Your task to perform on an android device: turn on data saver in the chrome app Image 0: 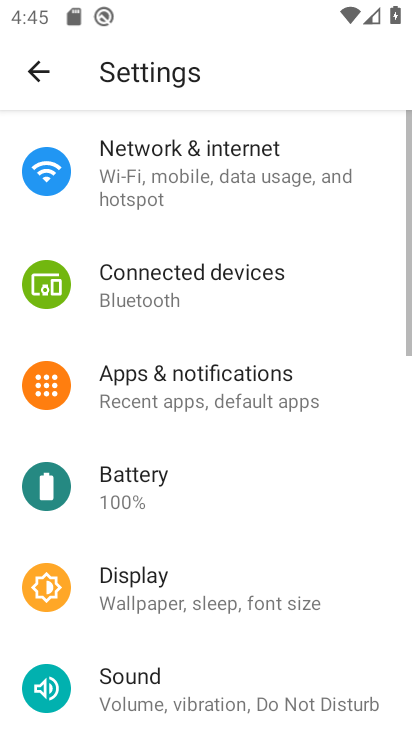
Step 0: press home button
Your task to perform on an android device: turn on data saver in the chrome app Image 1: 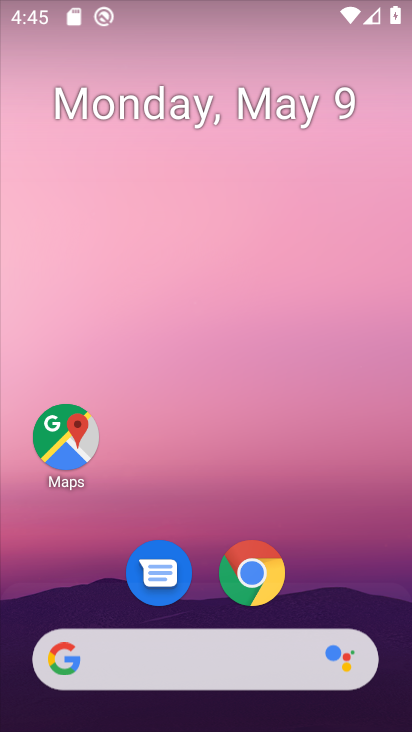
Step 1: click (257, 573)
Your task to perform on an android device: turn on data saver in the chrome app Image 2: 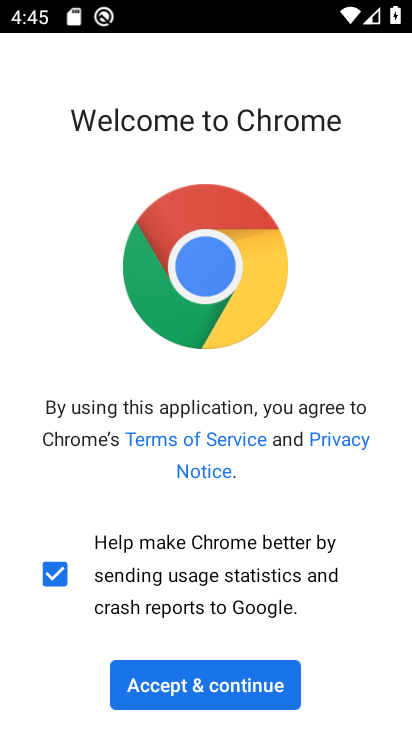
Step 2: click (209, 685)
Your task to perform on an android device: turn on data saver in the chrome app Image 3: 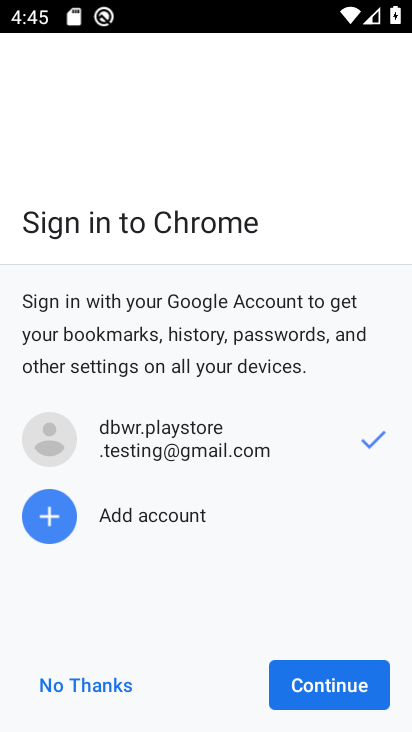
Step 3: click (324, 687)
Your task to perform on an android device: turn on data saver in the chrome app Image 4: 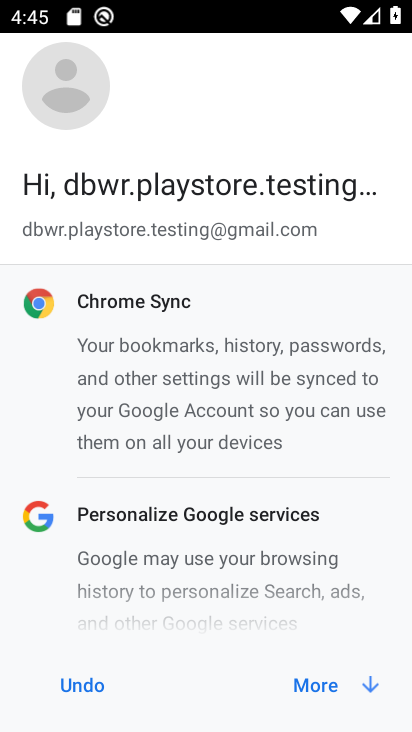
Step 4: click (317, 684)
Your task to perform on an android device: turn on data saver in the chrome app Image 5: 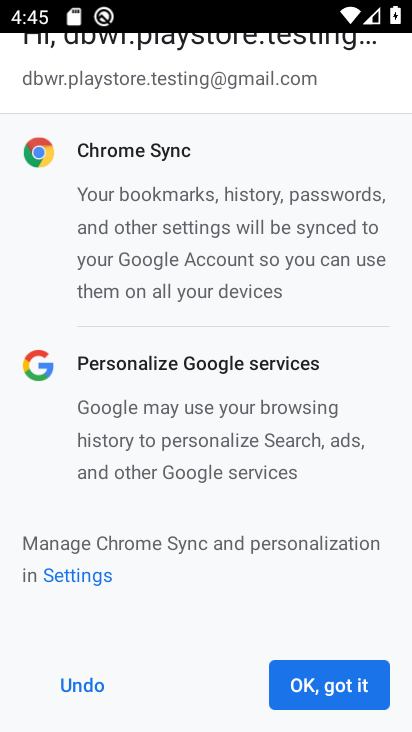
Step 5: click (325, 691)
Your task to perform on an android device: turn on data saver in the chrome app Image 6: 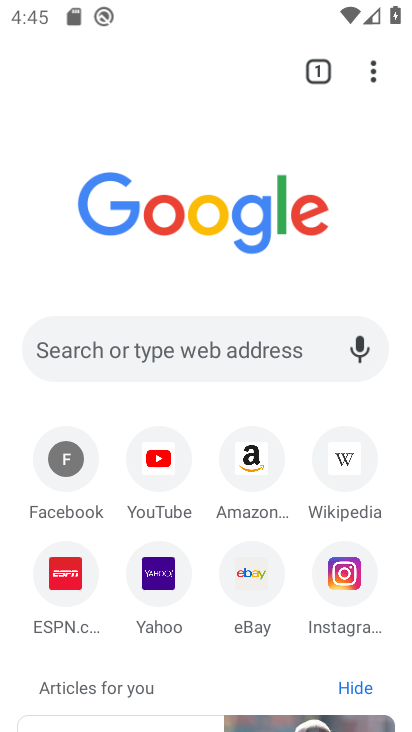
Step 6: click (375, 74)
Your task to perform on an android device: turn on data saver in the chrome app Image 7: 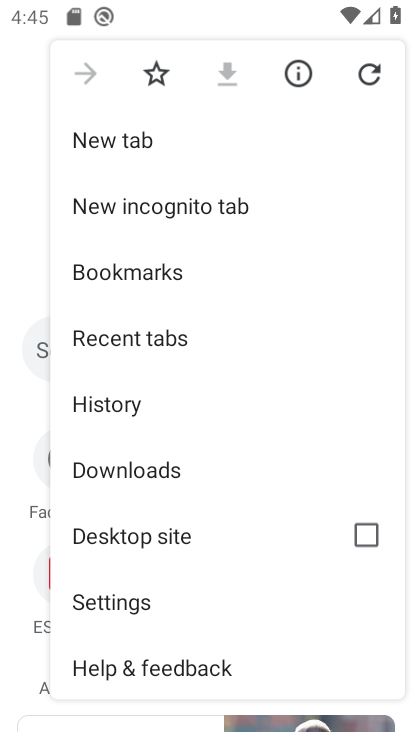
Step 7: click (100, 599)
Your task to perform on an android device: turn on data saver in the chrome app Image 8: 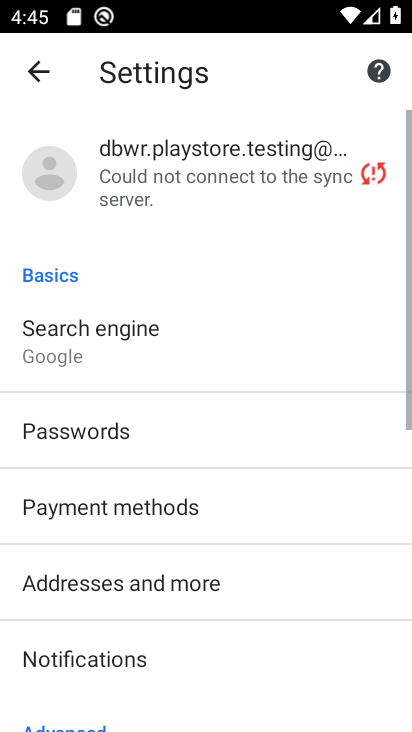
Step 8: drag from (257, 676) to (269, 292)
Your task to perform on an android device: turn on data saver in the chrome app Image 9: 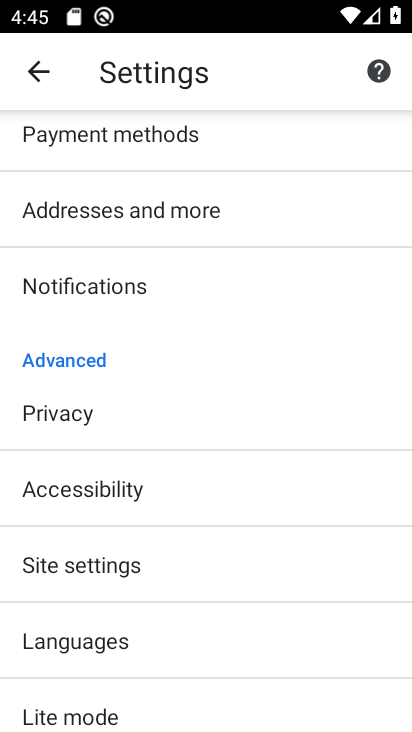
Step 9: drag from (243, 619) to (255, 396)
Your task to perform on an android device: turn on data saver in the chrome app Image 10: 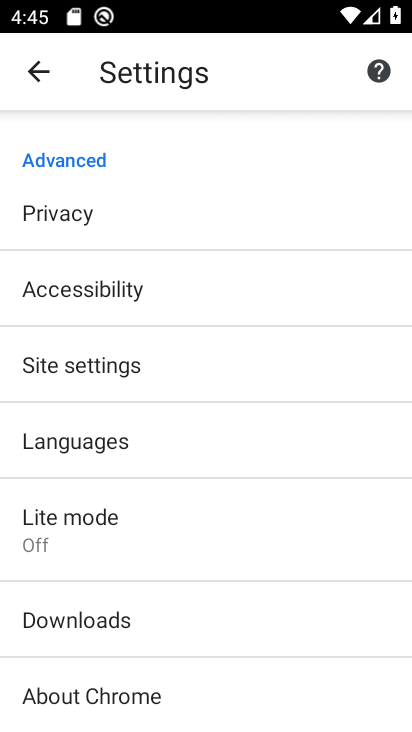
Step 10: click (65, 518)
Your task to perform on an android device: turn on data saver in the chrome app Image 11: 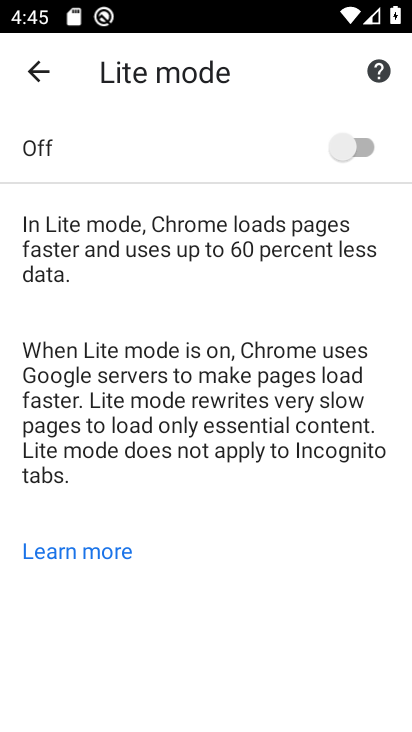
Step 11: click (364, 139)
Your task to perform on an android device: turn on data saver in the chrome app Image 12: 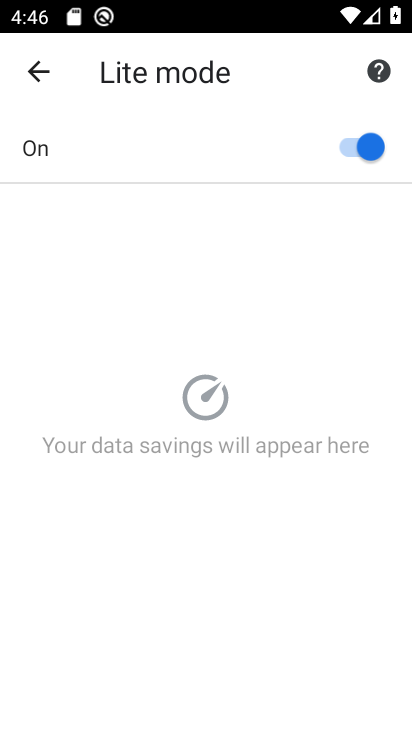
Step 12: task complete